Your task to perform on an android device: open app "Google Keep" Image 0: 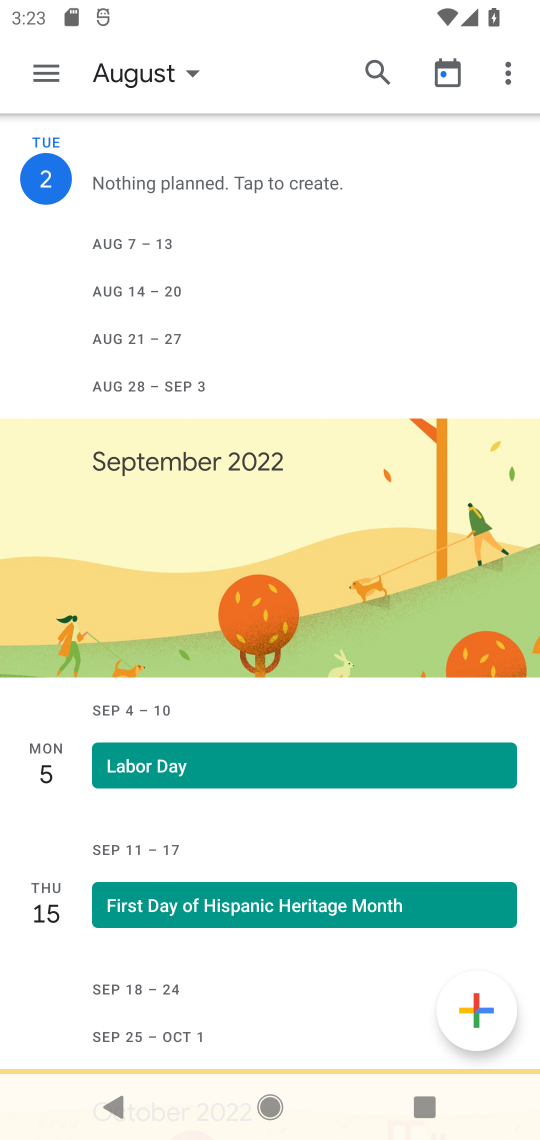
Step 0: press home button
Your task to perform on an android device: open app "Google Keep" Image 1: 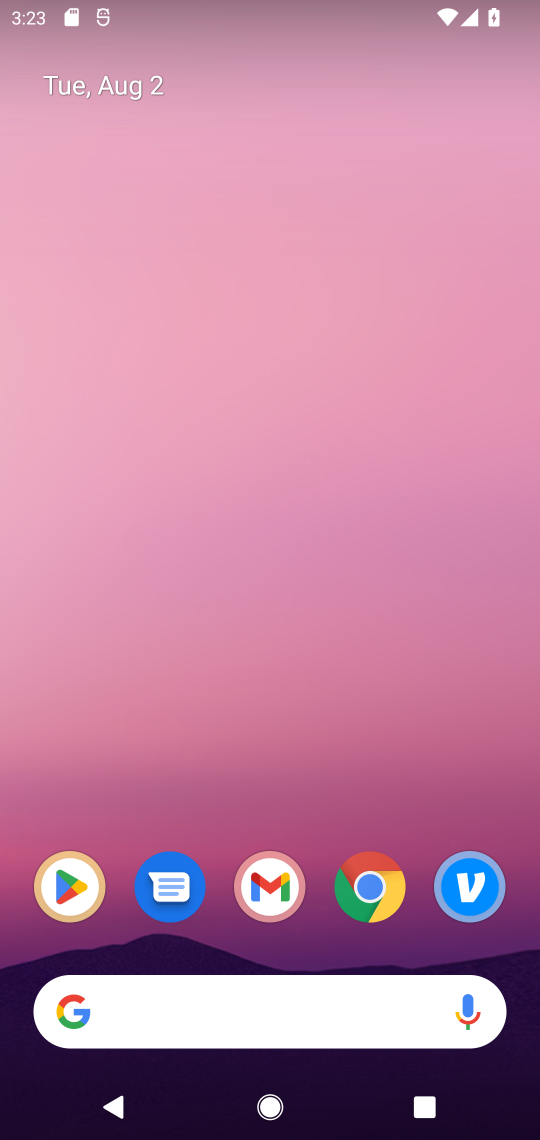
Step 1: click (72, 877)
Your task to perform on an android device: open app "Google Keep" Image 2: 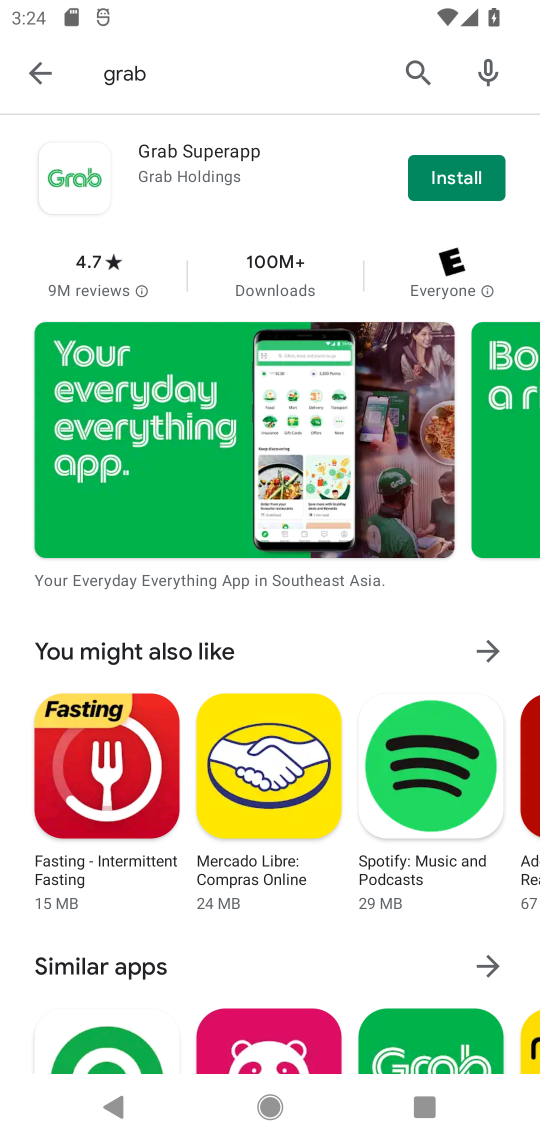
Step 2: click (45, 83)
Your task to perform on an android device: open app "Google Keep" Image 3: 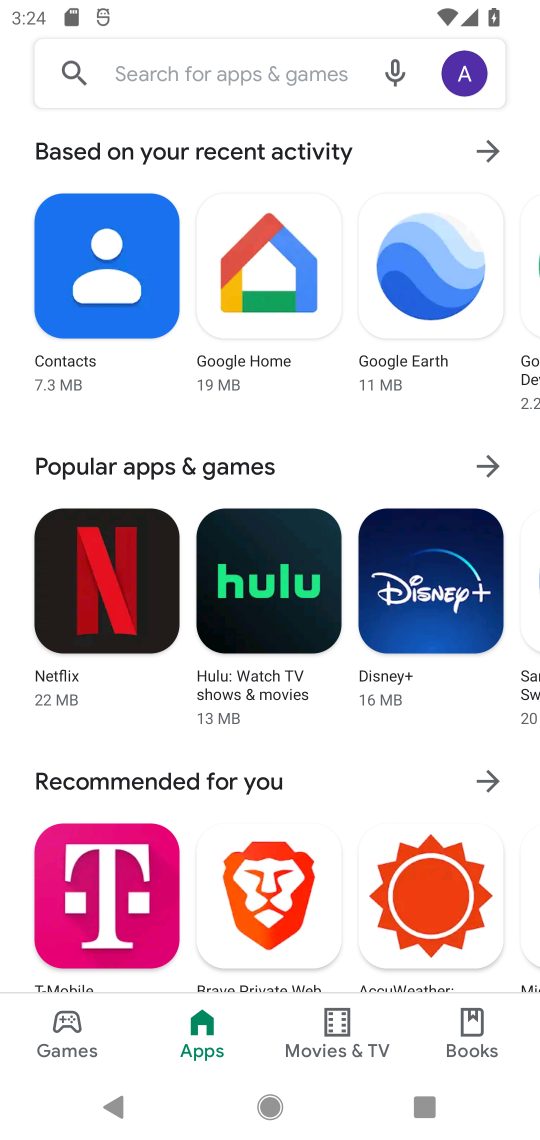
Step 3: click (128, 70)
Your task to perform on an android device: open app "Google Keep" Image 4: 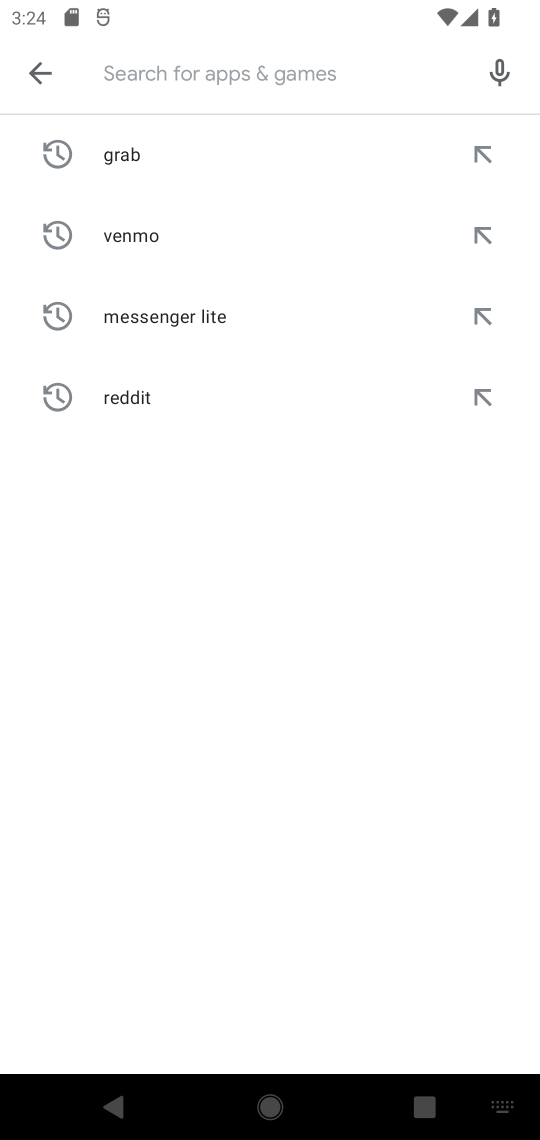
Step 4: type "Google Keep"
Your task to perform on an android device: open app "Google Keep" Image 5: 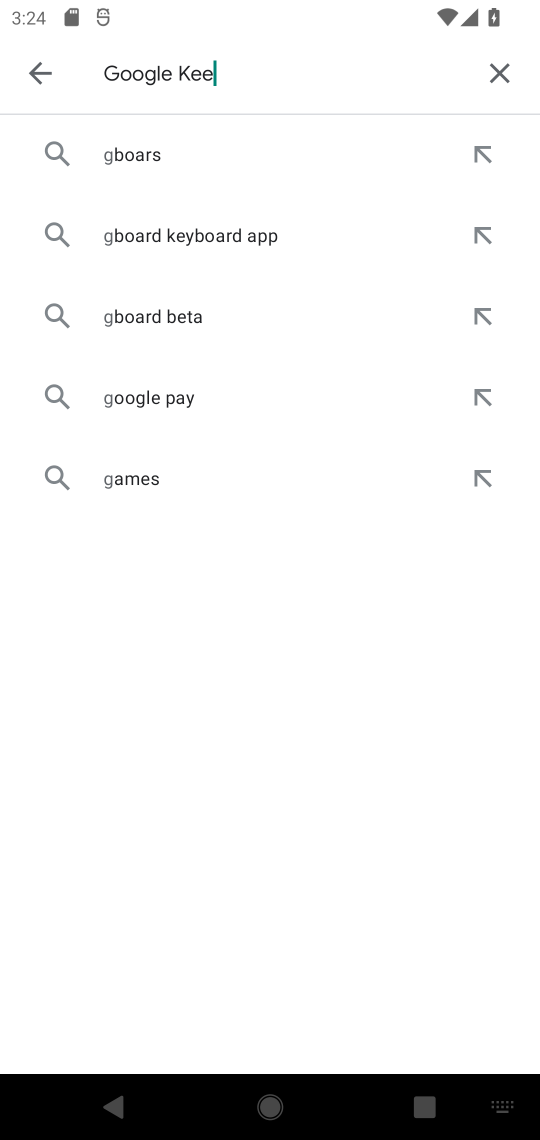
Step 5: type ""
Your task to perform on an android device: open app "Google Keep" Image 6: 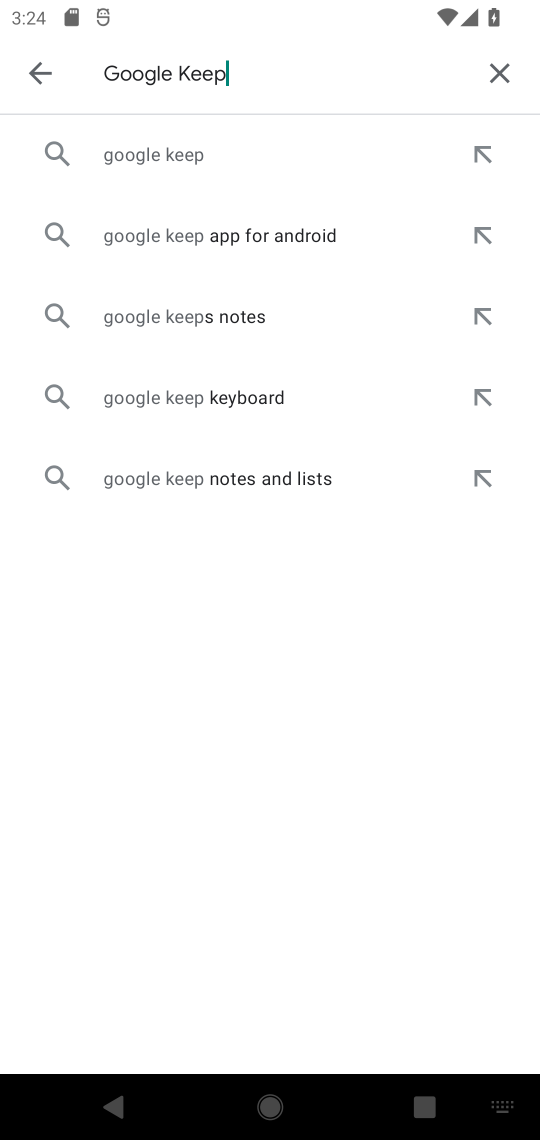
Step 6: click (129, 157)
Your task to perform on an android device: open app "Google Keep" Image 7: 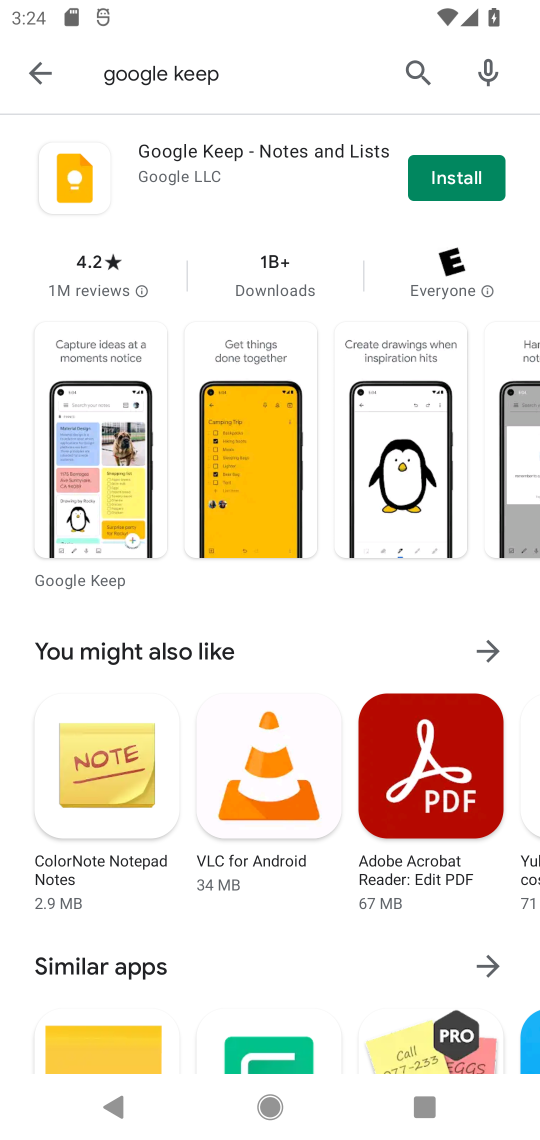
Step 7: click (460, 168)
Your task to perform on an android device: open app "Google Keep" Image 8: 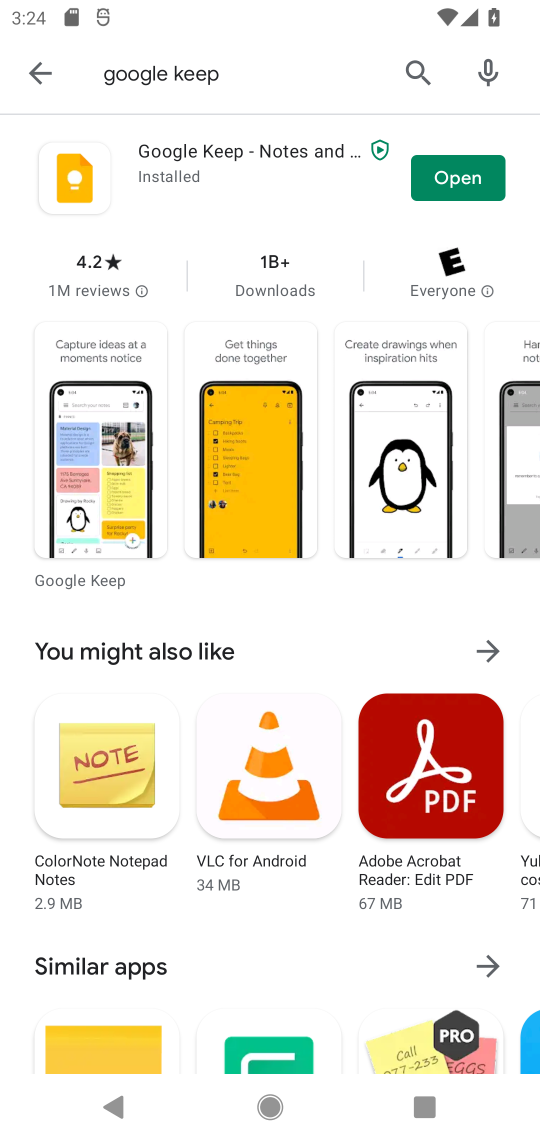
Step 8: task complete